Your task to perform on an android device: Search for Italian restaurants on Maps Image 0: 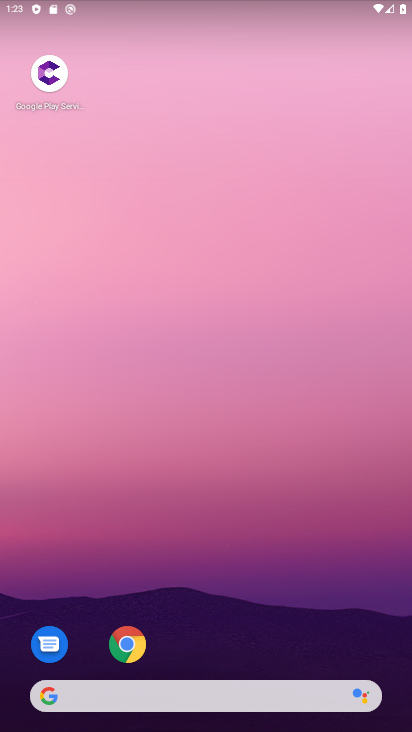
Step 0: drag from (254, 558) to (284, 4)
Your task to perform on an android device: Search for Italian restaurants on Maps Image 1: 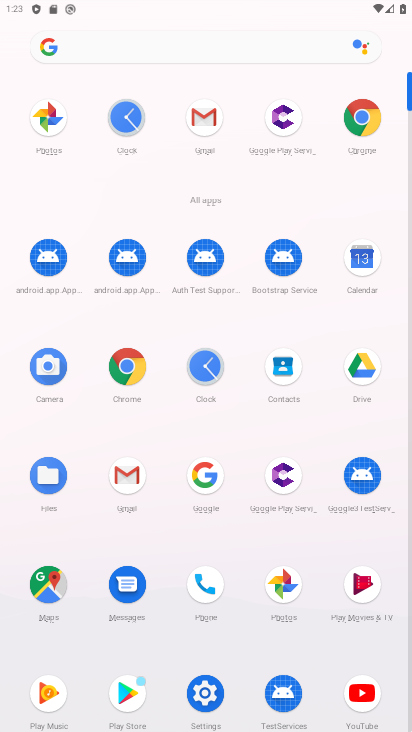
Step 1: click (47, 587)
Your task to perform on an android device: Search for Italian restaurants on Maps Image 2: 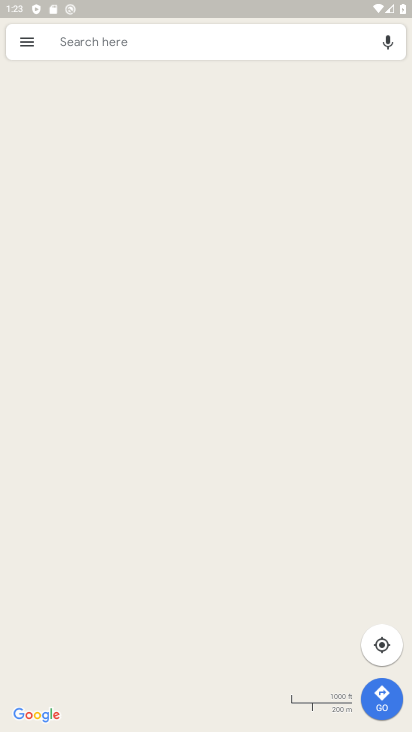
Step 2: click (261, 49)
Your task to perform on an android device: Search for Italian restaurants on Maps Image 3: 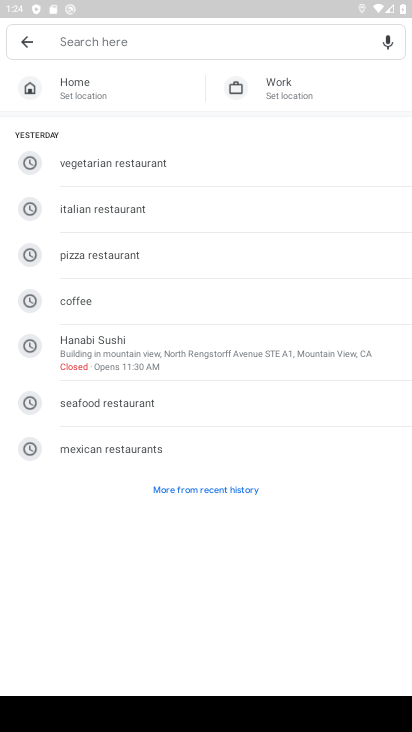
Step 3: type "italian restaurants"
Your task to perform on an android device: Search for Italian restaurants on Maps Image 4: 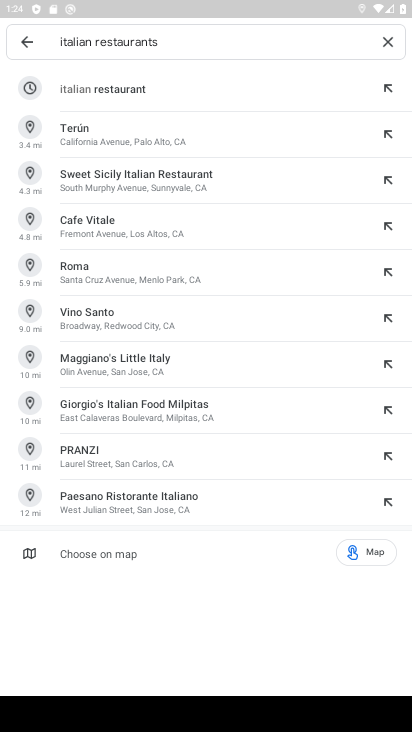
Step 4: click (190, 93)
Your task to perform on an android device: Search for Italian restaurants on Maps Image 5: 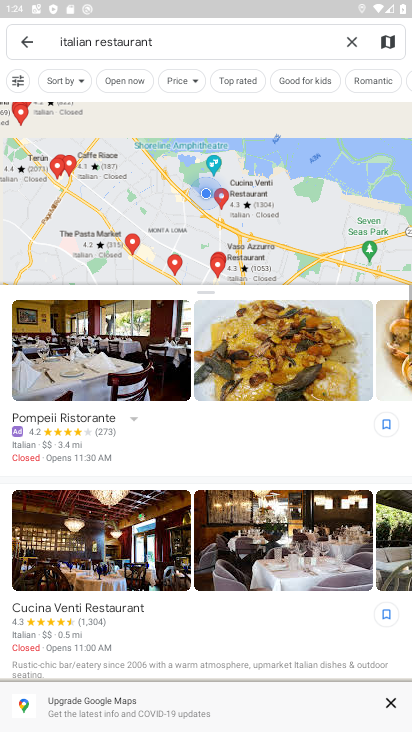
Step 5: task complete